Your task to perform on an android device: Search for Mexican restaurants on Maps Image 0: 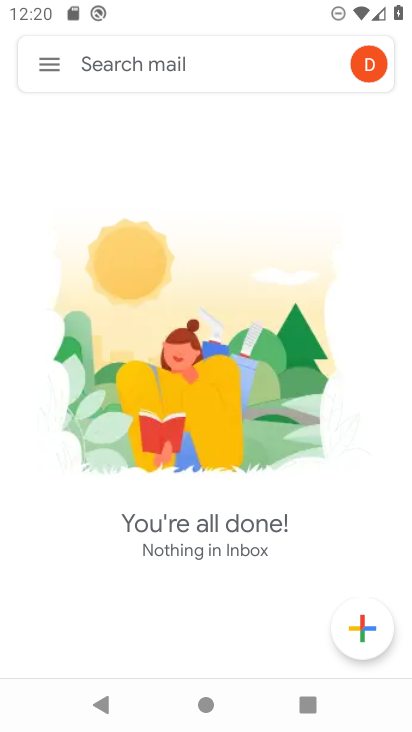
Step 0: click (52, 62)
Your task to perform on an android device: Search for Mexican restaurants on Maps Image 1: 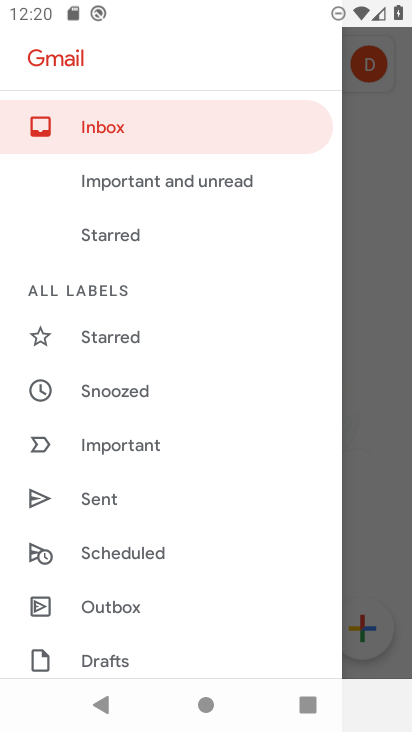
Step 1: drag from (142, 571) to (149, 192)
Your task to perform on an android device: Search for Mexican restaurants on Maps Image 2: 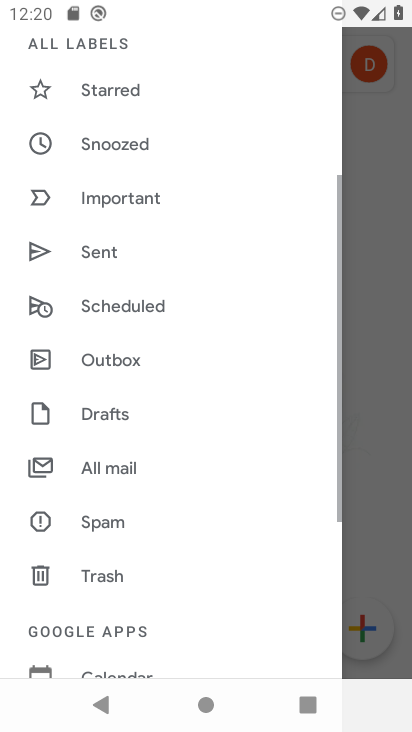
Step 2: drag from (219, 581) to (239, 190)
Your task to perform on an android device: Search for Mexican restaurants on Maps Image 3: 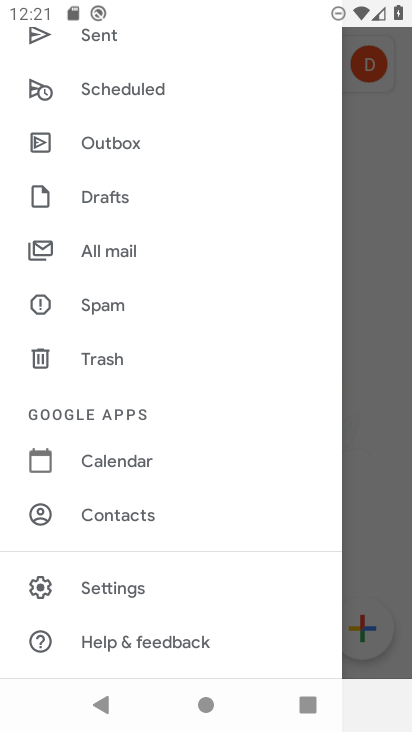
Step 3: click (373, 484)
Your task to perform on an android device: Search for Mexican restaurants on Maps Image 4: 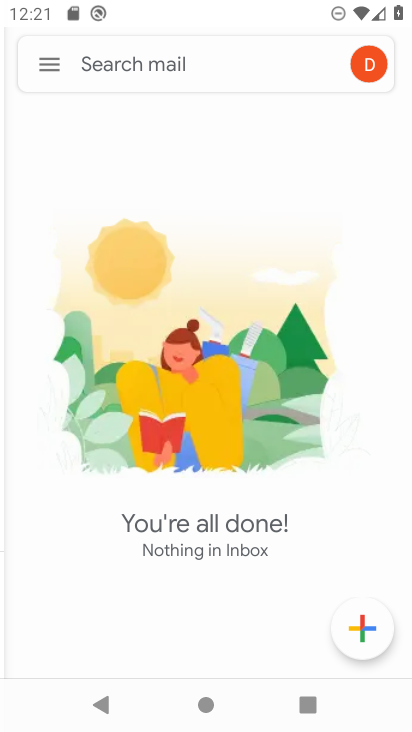
Step 4: click (373, 484)
Your task to perform on an android device: Search for Mexican restaurants on Maps Image 5: 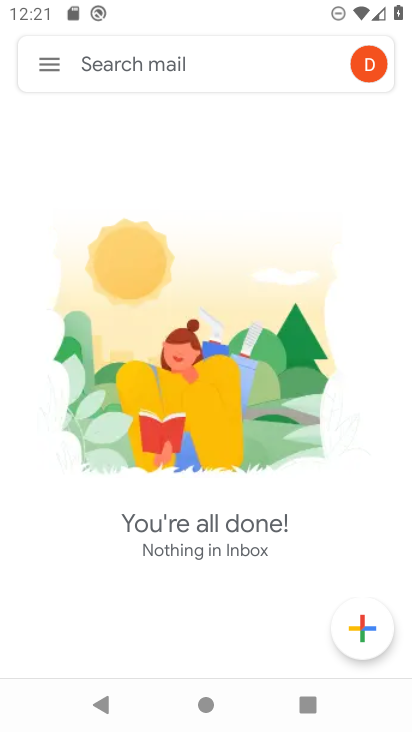
Step 5: press home button
Your task to perform on an android device: Search for Mexican restaurants on Maps Image 6: 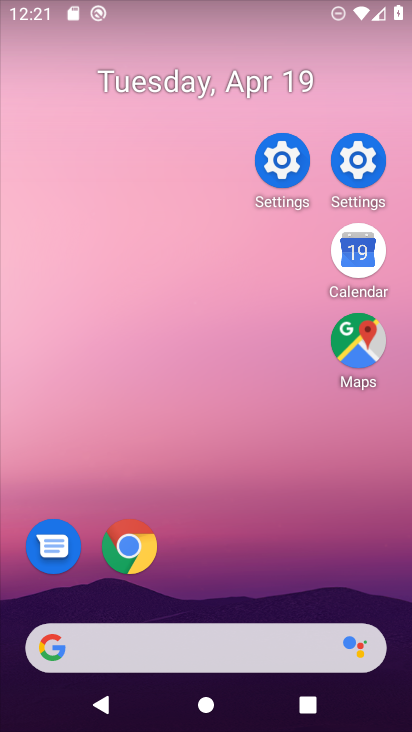
Step 6: drag from (289, 579) to (150, 29)
Your task to perform on an android device: Search for Mexican restaurants on Maps Image 7: 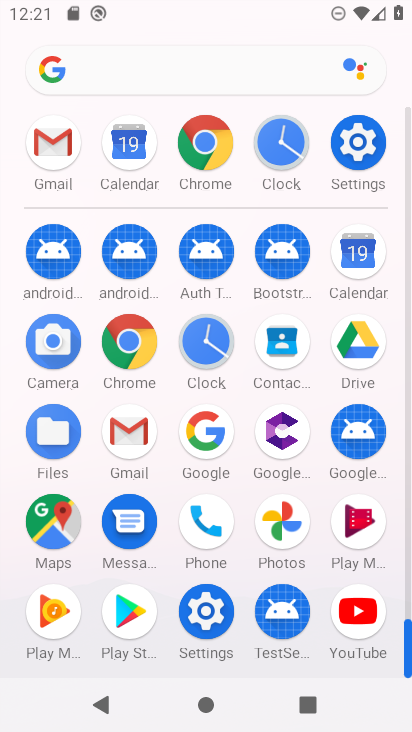
Step 7: click (53, 522)
Your task to perform on an android device: Search for Mexican restaurants on Maps Image 8: 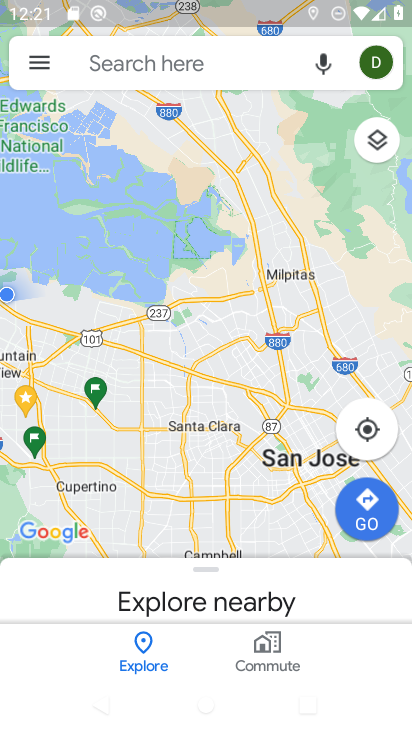
Step 8: click (106, 56)
Your task to perform on an android device: Search for Mexican restaurants on Maps Image 9: 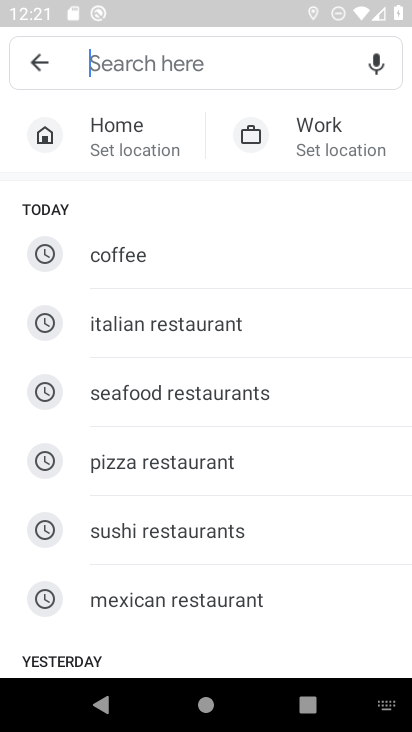
Step 9: click (172, 610)
Your task to perform on an android device: Search for Mexican restaurants on Maps Image 10: 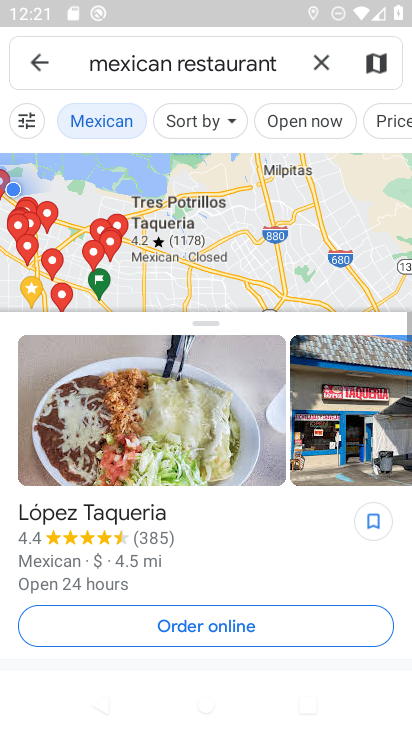
Step 10: task complete